Your task to perform on an android device: Search for vegetarian restaurants on Maps Image 0: 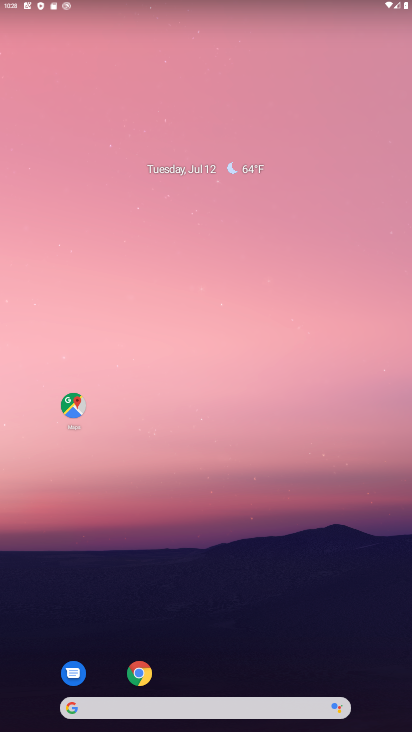
Step 0: drag from (318, 596) to (278, 62)
Your task to perform on an android device: Search for vegetarian restaurants on Maps Image 1: 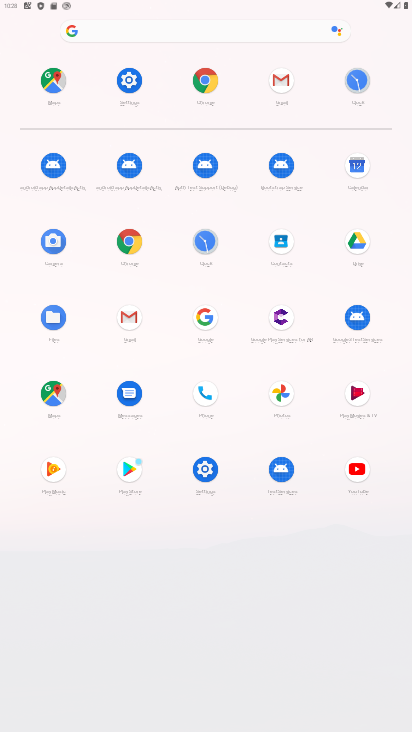
Step 1: click (53, 393)
Your task to perform on an android device: Search for vegetarian restaurants on Maps Image 2: 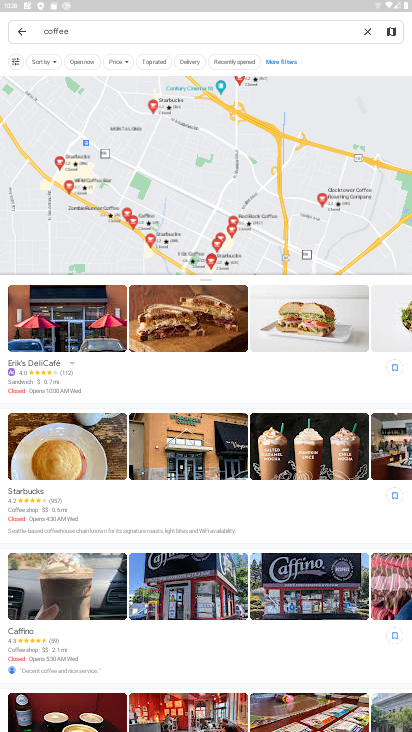
Step 2: click (191, 33)
Your task to perform on an android device: Search for vegetarian restaurants on Maps Image 3: 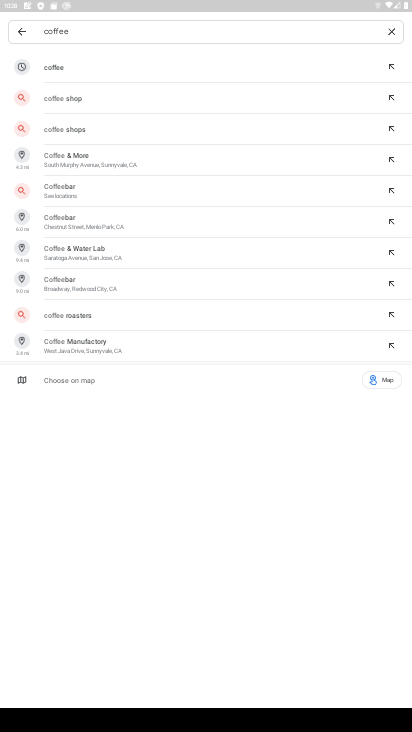
Step 3: click (395, 28)
Your task to perform on an android device: Search for vegetarian restaurants on Maps Image 4: 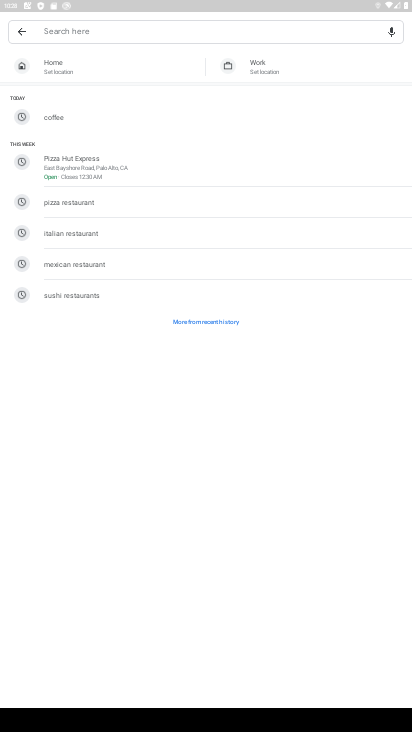
Step 4: type "vegetarian restaurants"
Your task to perform on an android device: Search for vegetarian restaurants on Maps Image 5: 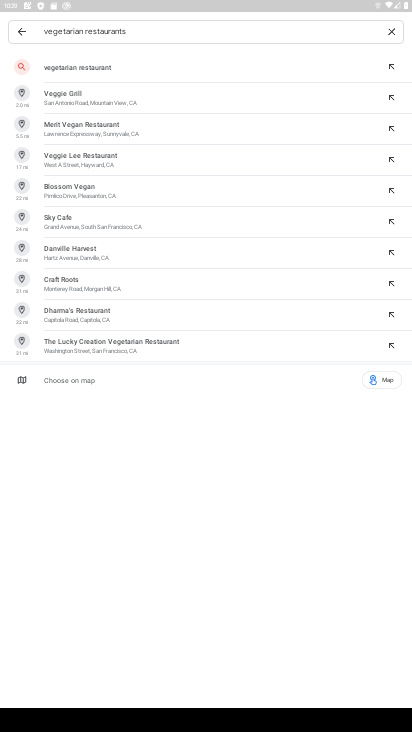
Step 5: press enter
Your task to perform on an android device: Search for vegetarian restaurants on Maps Image 6: 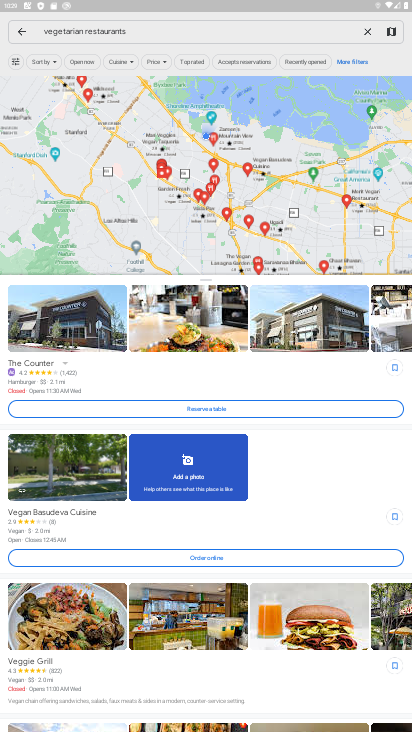
Step 6: task complete